Your task to perform on an android device: turn on data saver in the chrome app Image 0: 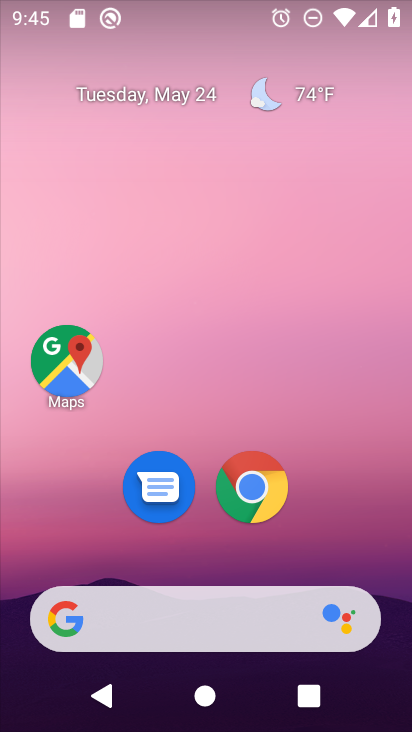
Step 0: click (260, 497)
Your task to perform on an android device: turn on data saver in the chrome app Image 1: 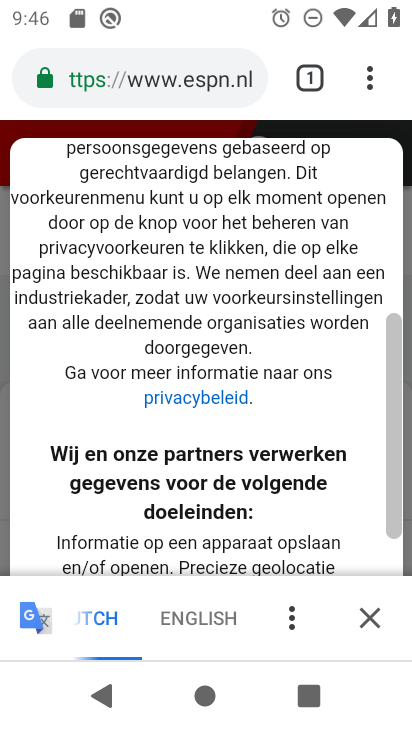
Step 1: click (371, 75)
Your task to perform on an android device: turn on data saver in the chrome app Image 2: 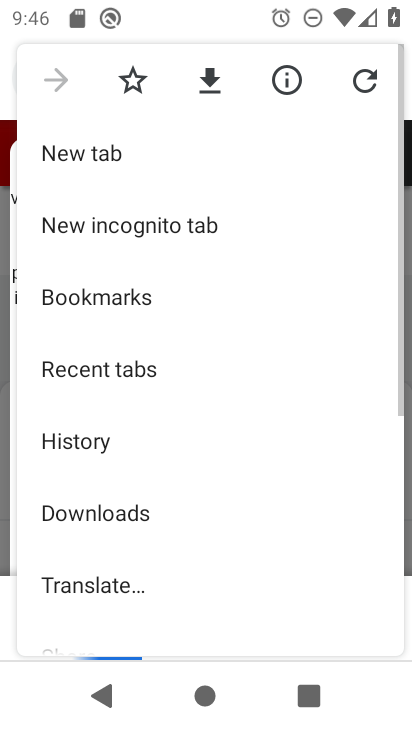
Step 2: drag from (175, 544) to (163, 114)
Your task to perform on an android device: turn on data saver in the chrome app Image 3: 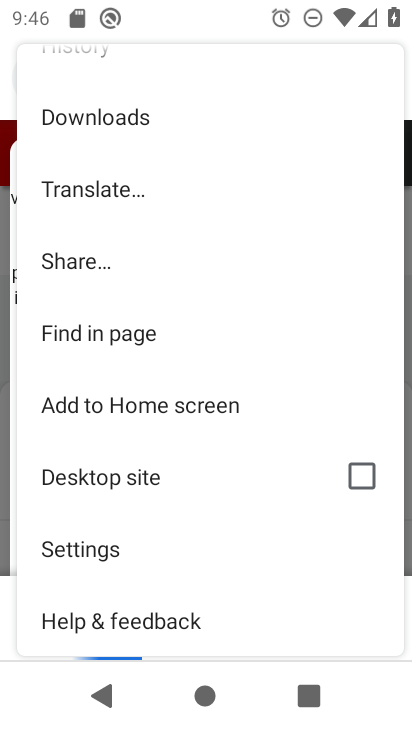
Step 3: click (87, 549)
Your task to perform on an android device: turn on data saver in the chrome app Image 4: 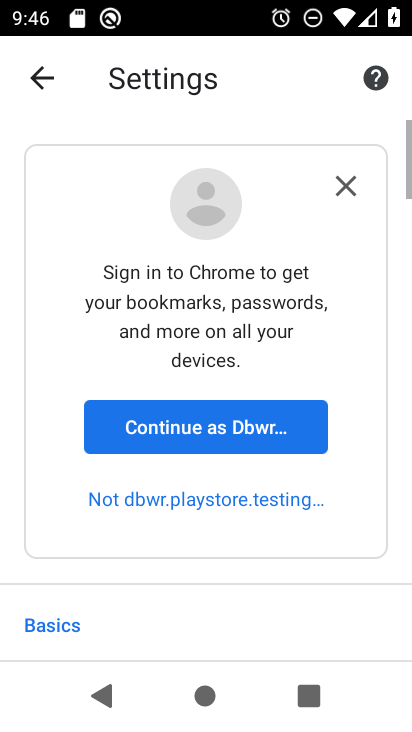
Step 4: drag from (158, 580) to (167, 93)
Your task to perform on an android device: turn on data saver in the chrome app Image 5: 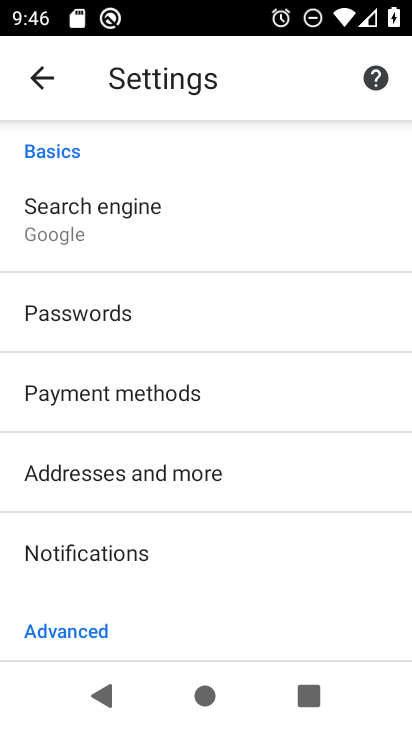
Step 5: drag from (181, 520) to (165, 144)
Your task to perform on an android device: turn on data saver in the chrome app Image 6: 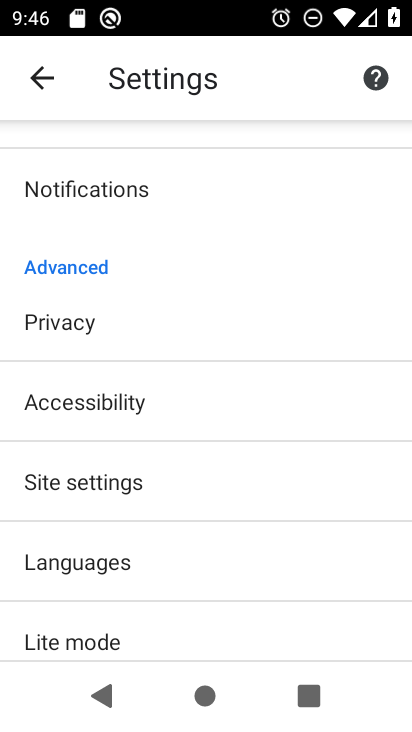
Step 6: click (95, 641)
Your task to perform on an android device: turn on data saver in the chrome app Image 7: 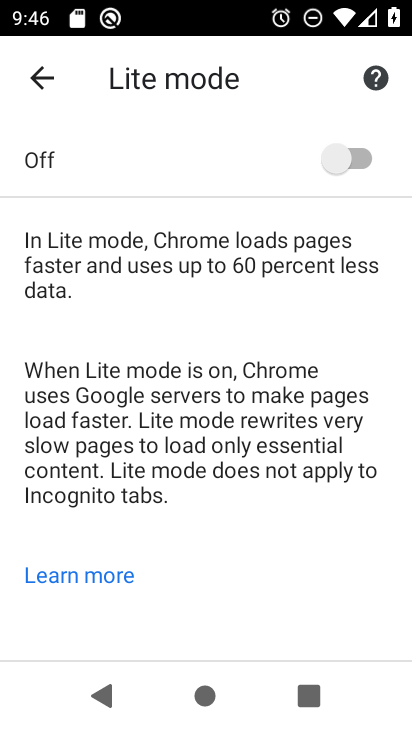
Step 7: click (334, 163)
Your task to perform on an android device: turn on data saver in the chrome app Image 8: 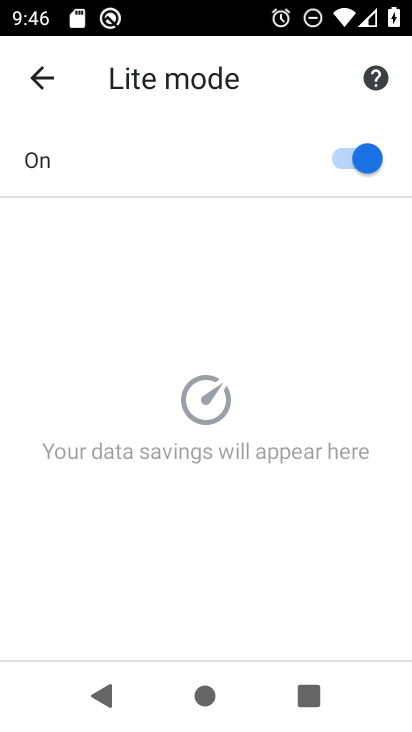
Step 8: task complete